Your task to perform on an android device: open app "Adobe Acrobat Reader" (install if not already installed) and enter user name: "nondescriptly@inbox.com" and password: "negating" Image 0: 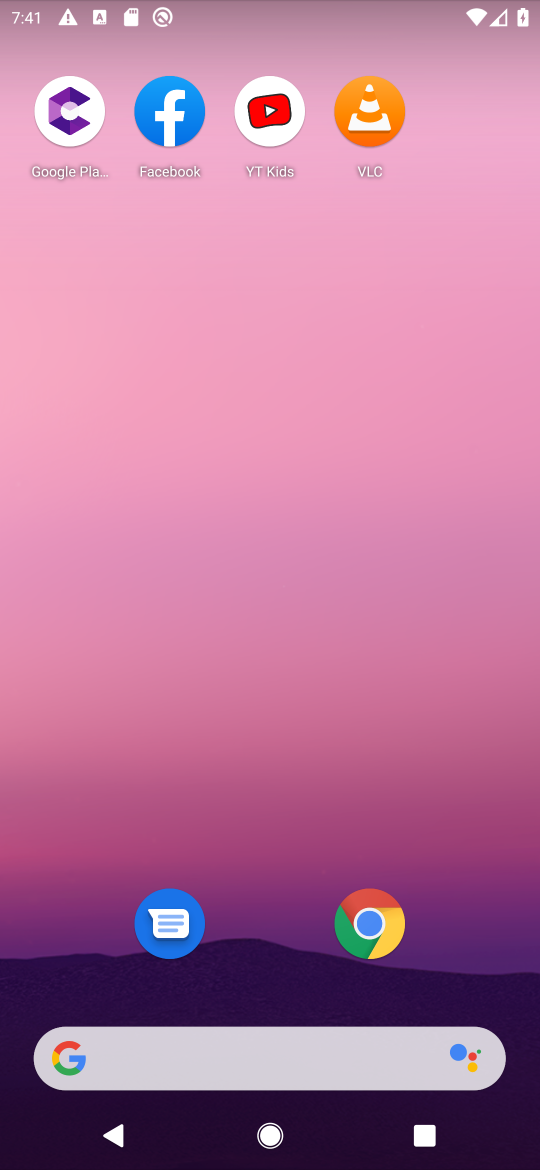
Step 0: press home button
Your task to perform on an android device: open app "Adobe Acrobat Reader" (install if not already installed) and enter user name: "nondescriptly@inbox.com" and password: "negating" Image 1: 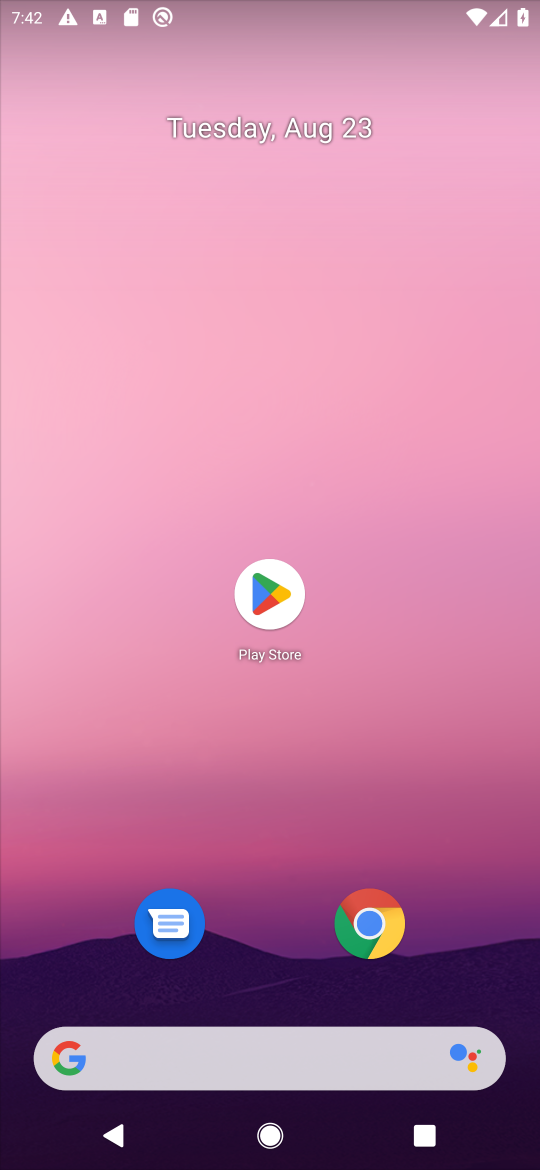
Step 1: click (271, 586)
Your task to perform on an android device: open app "Adobe Acrobat Reader" (install if not already installed) and enter user name: "nondescriptly@inbox.com" and password: "negating" Image 2: 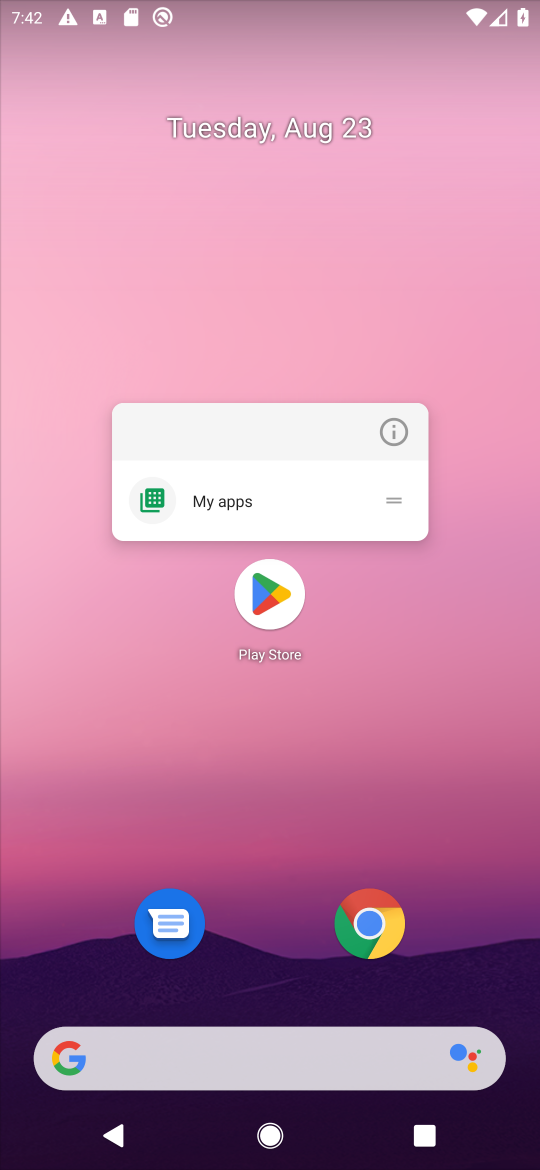
Step 2: click (266, 605)
Your task to perform on an android device: open app "Adobe Acrobat Reader" (install if not already installed) and enter user name: "nondescriptly@inbox.com" and password: "negating" Image 3: 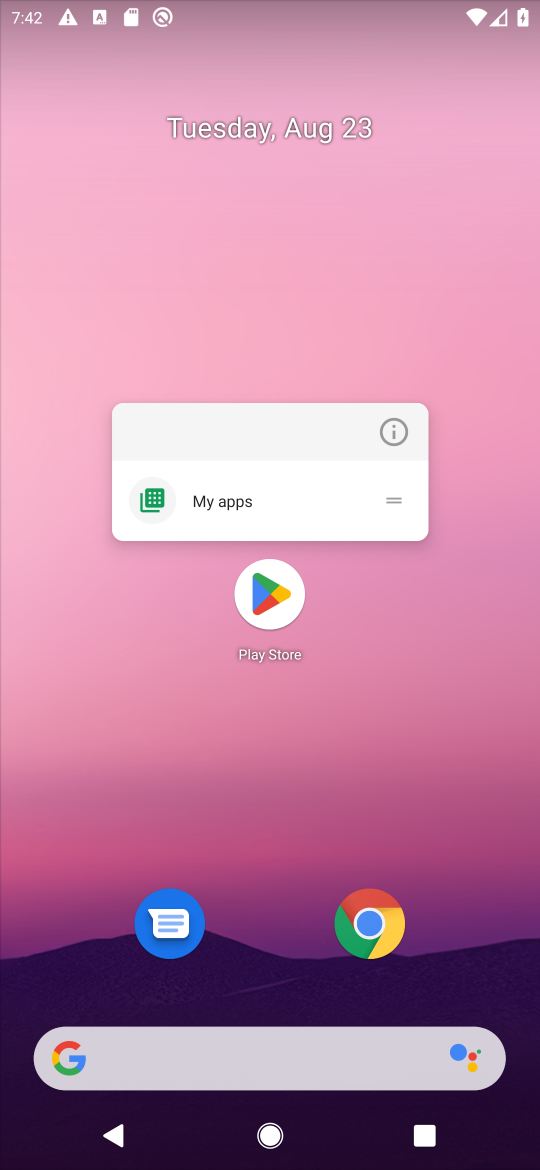
Step 3: click (266, 606)
Your task to perform on an android device: open app "Adobe Acrobat Reader" (install if not already installed) and enter user name: "nondescriptly@inbox.com" and password: "negating" Image 4: 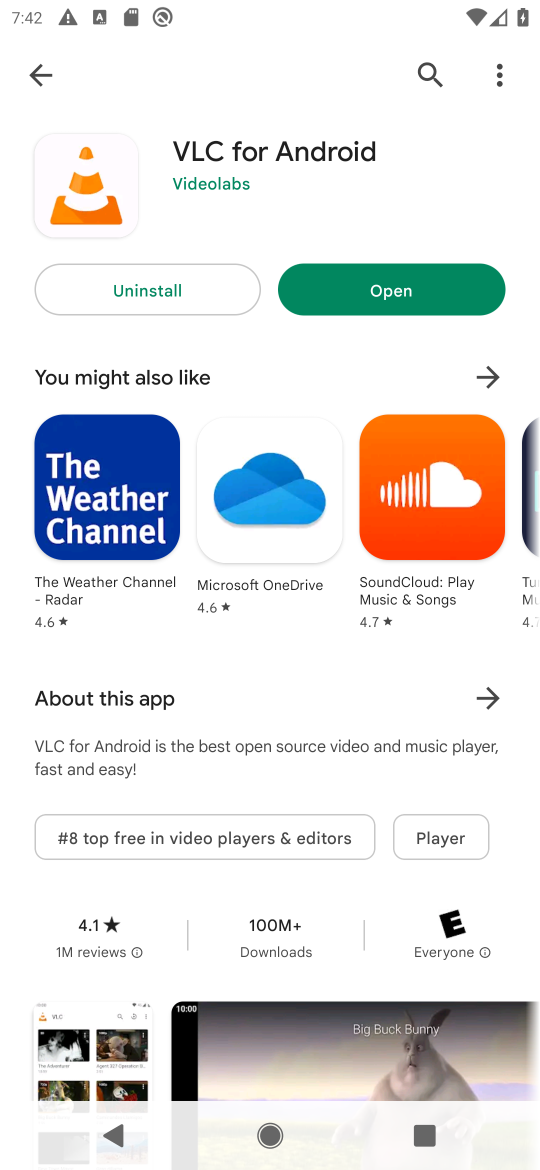
Step 4: click (423, 67)
Your task to perform on an android device: open app "Adobe Acrobat Reader" (install if not already installed) and enter user name: "nondescriptly@inbox.com" and password: "negating" Image 5: 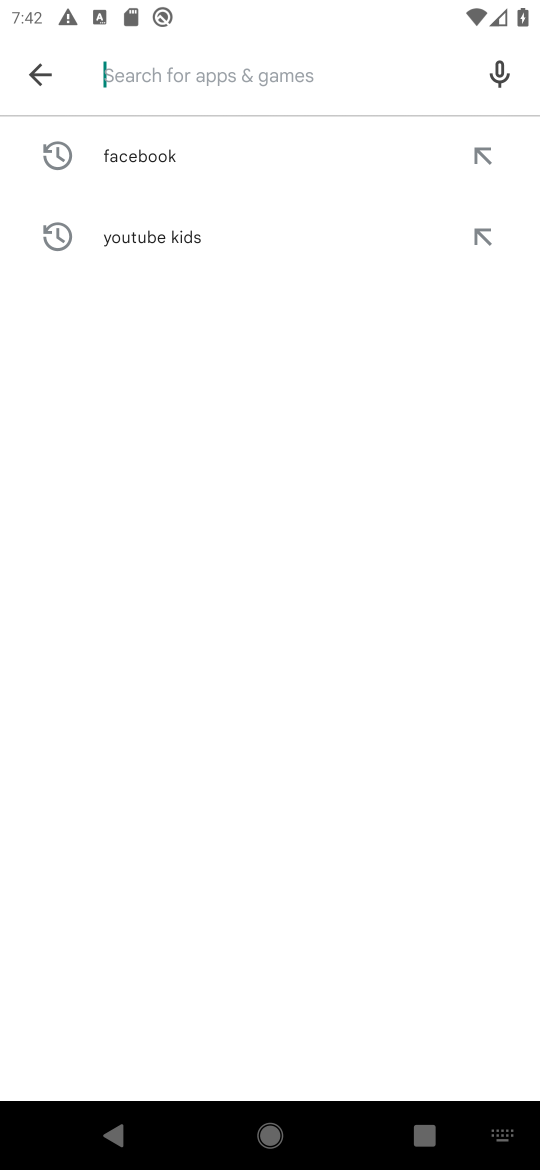
Step 5: type "Adobe Acrobat Reader"
Your task to perform on an android device: open app "Adobe Acrobat Reader" (install if not already installed) and enter user name: "nondescriptly@inbox.com" and password: "negating" Image 6: 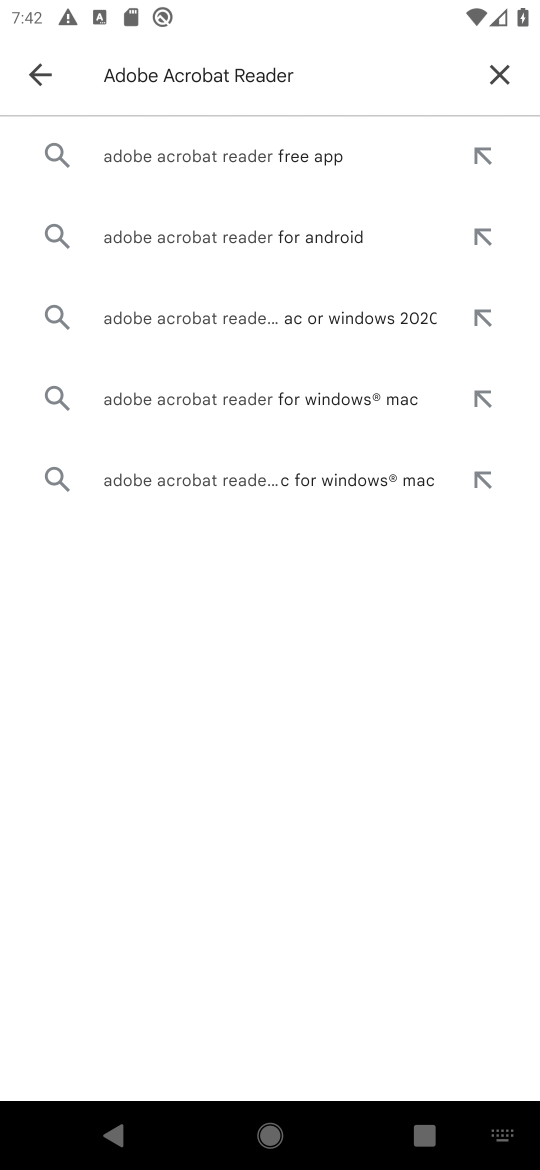
Step 6: click (234, 148)
Your task to perform on an android device: open app "Adobe Acrobat Reader" (install if not already installed) and enter user name: "nondescriptly@inbox.com" and password: "negating" Image 7: 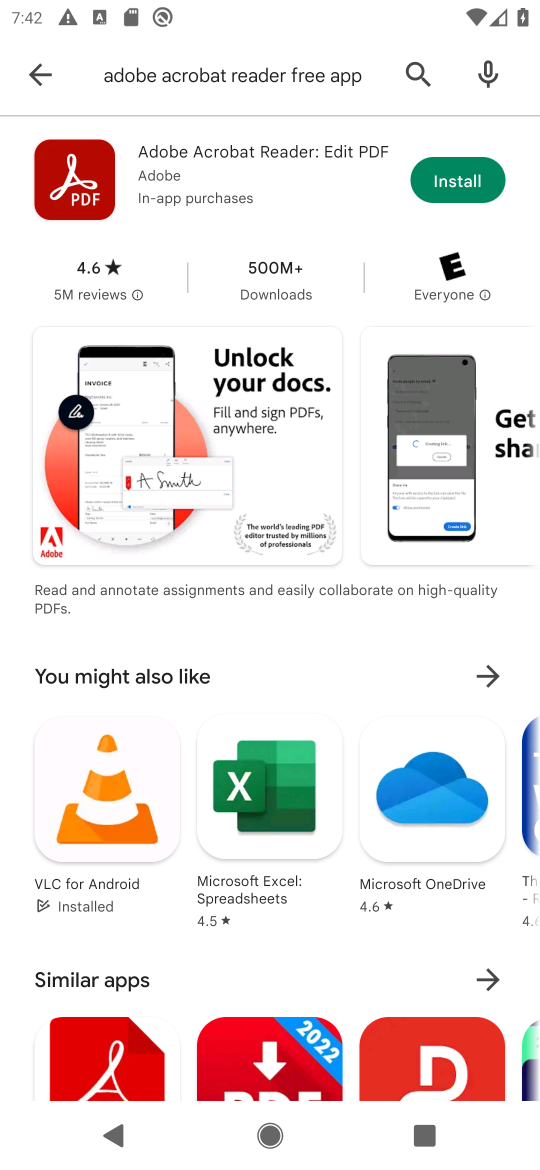
Step 7: click (468, 176)
Your task to perform on an android device: open app "Adobe Acrobat Reader" (install if not already installed) and enter user name: "nondescriptly@inbox.com" and password: "negating" Image 8: 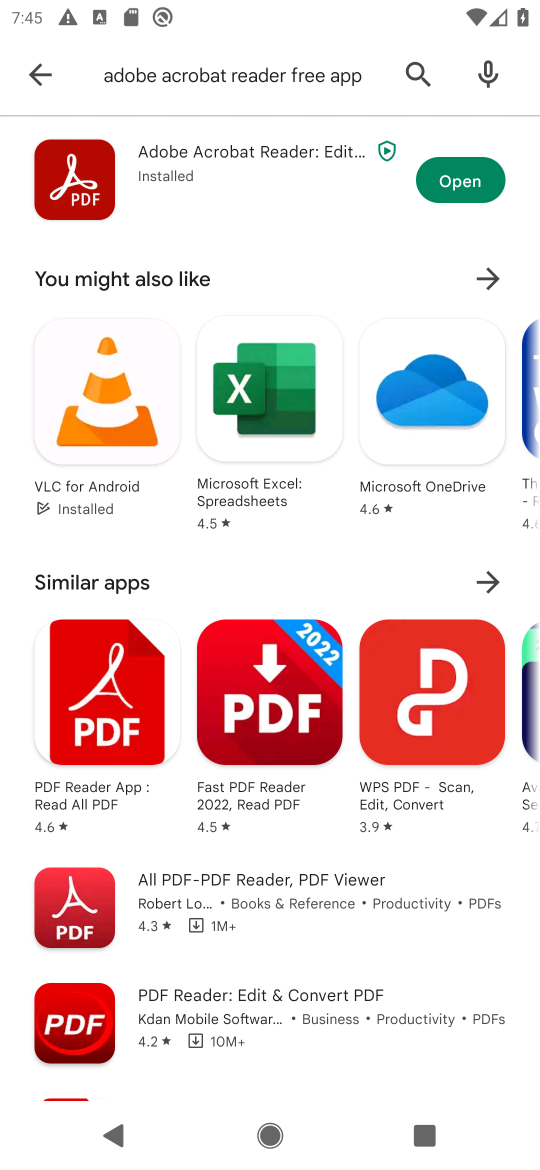
Step 8: click (451, 177)
Your task to perform on an android device: open app "Adobe Acrobat Reader" (install if not already installed) and enter user name: "nondescriptly@inbox.com" and password: "negating" Image 9: 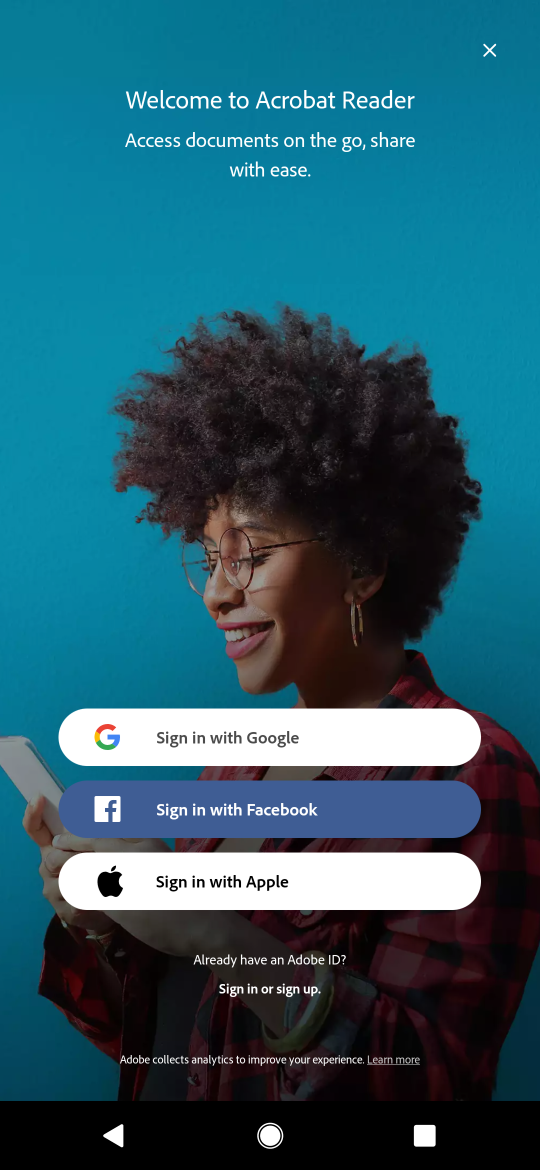
Step 9: click (270, 990)
Your task to perform on an android device: open app "Adobe Acrobat Reader" (install if not already installed) and enter user name: "nondescriptly@inbox.com" and password: "negating" Image 10: 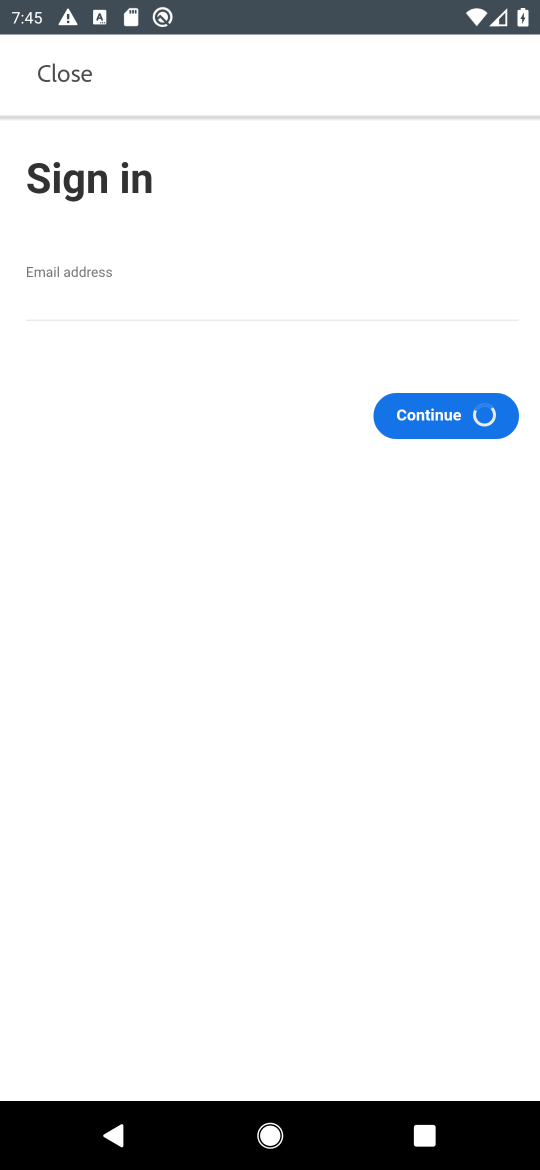
Step 10: click (178, 280)
Your task to perform on an android device: open app "Adobe Acrobat Reader" (install if not already installed) and enter user name: "nondescriptly@inbox.com" and password: "negating" Image 11: 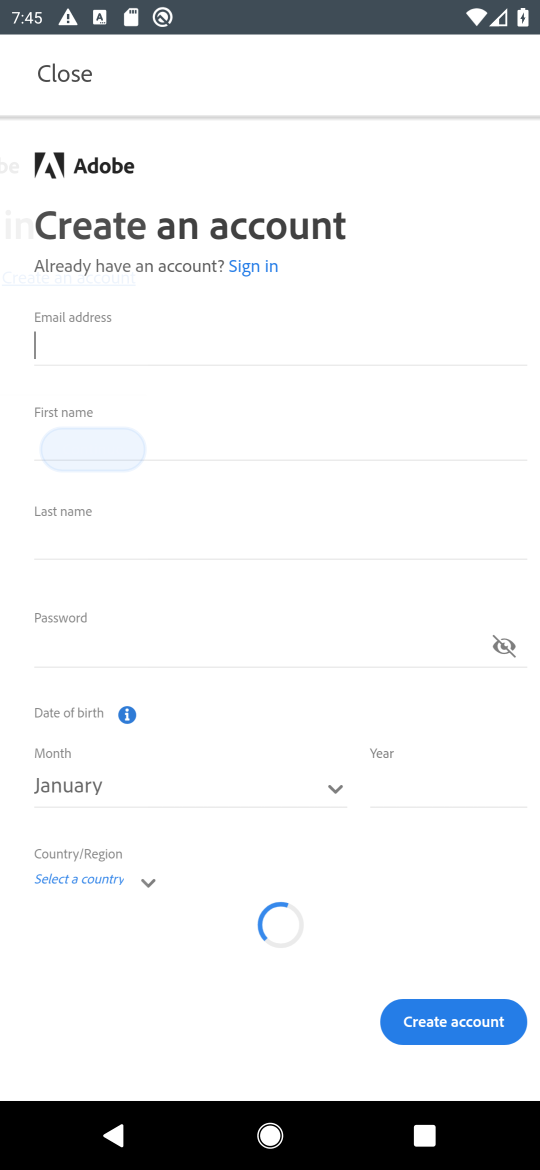
Step 11: click (162, 311)
Your task to perform on an android device: open app "Adobe Acrobat Reader" (install if not already installed) and enter user name: "nondescriptly@inbox.com" and password: "negating" Image 12: 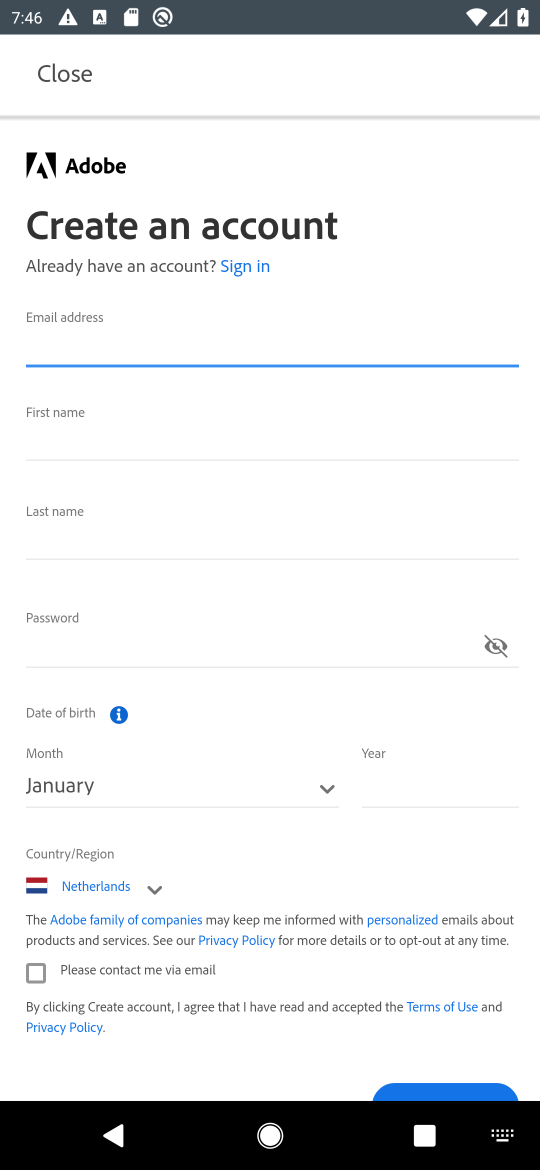
Step 12: press back button
Your task to perform on an android device: open app "Adobe Acrobat Reader" (install if not already installed) and enter user name: "nondescriptly@inbox.com" and password: "negating" Image 13: 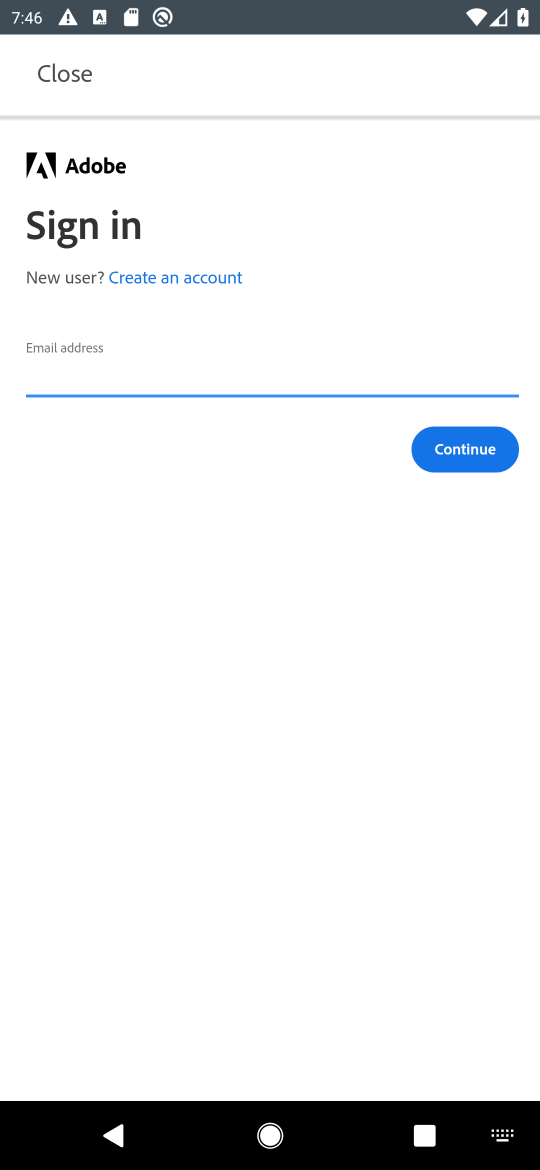
Step 13: type "nondescriptly@inbox.com"
Your task to perform on an android device: open app "Adobe Acrobat Reader" (install if not already installed) and enter user name: "nondescriptly@inbox.com" and password: "negating" Image 14: 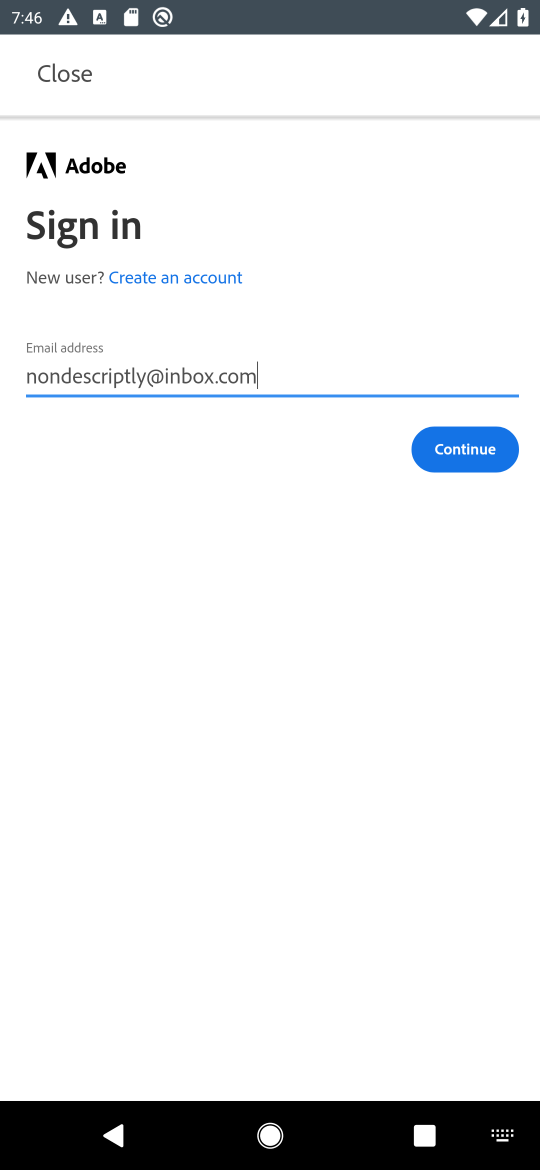
Step 14: click (435, 451)
Your task to perform on an android device: open app "Adobe Acrobat Reader" (install if not already installed) and enter user name: "nondescriptly@inbox.com" and password: "negating" Image 15: 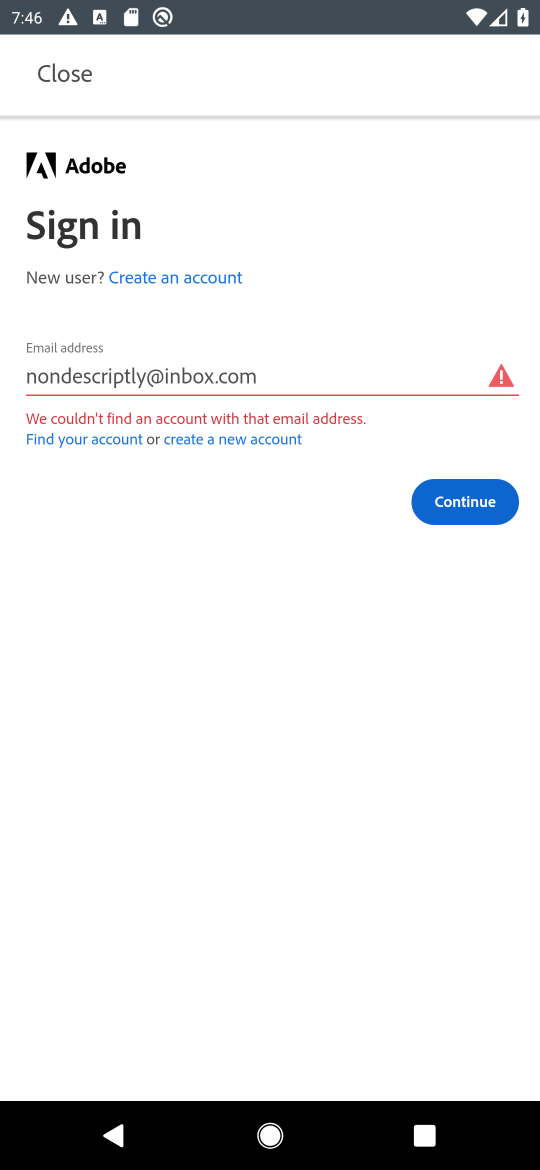
Step 15: task complete